Your task to perform on an android device: Open Google Chrome Image 0: 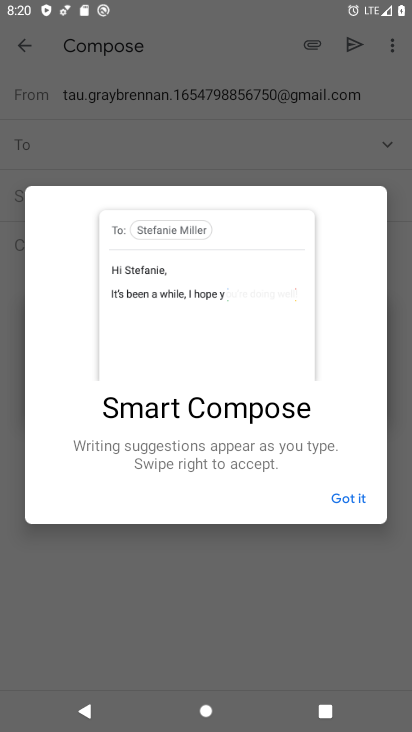
Step 0: press home button
Your task to perform on an android device: Open Google Chrome Image 1: 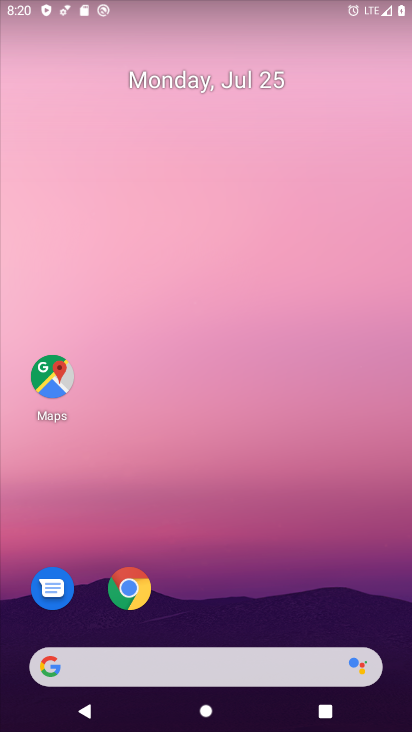
Step 1: drag from (298, 605) to (338, 82)
Your task to perform on an android device: Open Google Chrome Image 2: 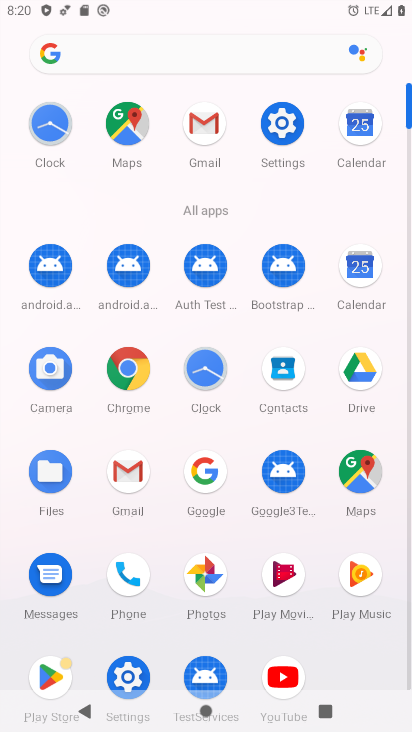
Step 2: click (129, 370)
Your task to perform on an android device: Open Google Chrome Image 3: 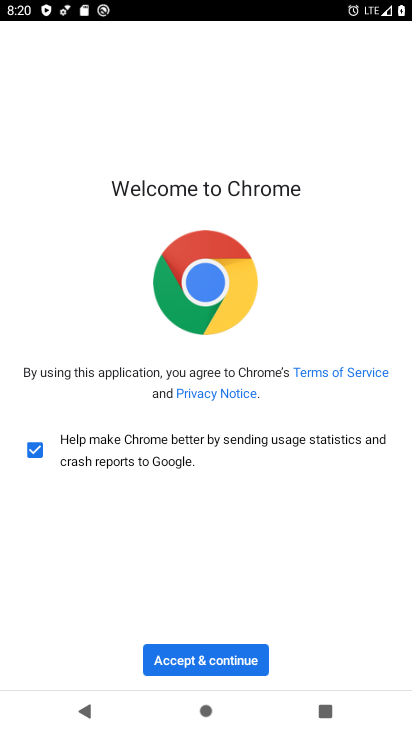
Step 3: click (230, 654)
Your task to perform on an android device: Open Google Chrome Image 4: 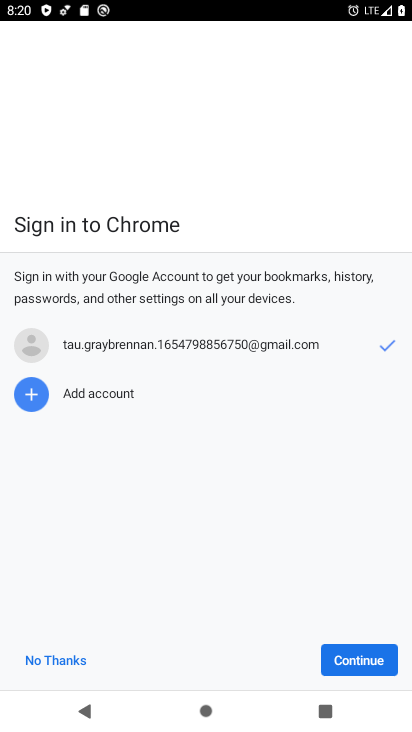
Step 4: click (345, 666)
Your task to perform on an android device: Open Google Chrome Image 5: 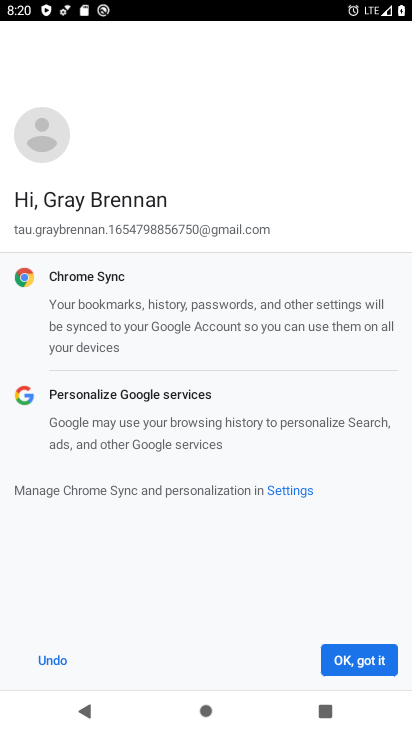
Step 5: click (345, 666)
Your task to perform on an android device: Open Google Chrome Image 6: 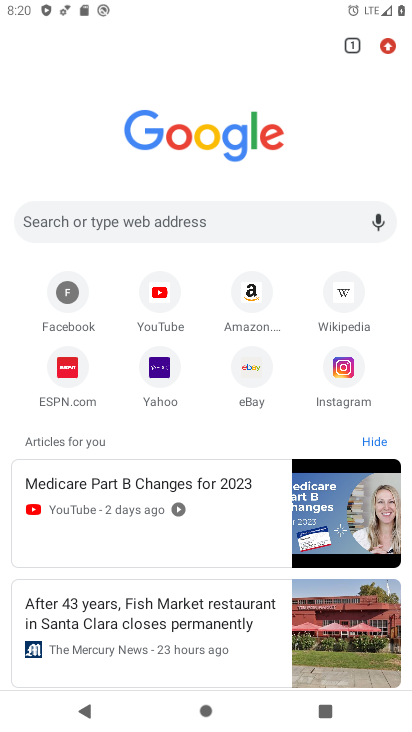
Step 6: task complete